Your task to perform on an android device: Clear the shopping cart on target. Add "acer predator" to the cart on target Image 0: 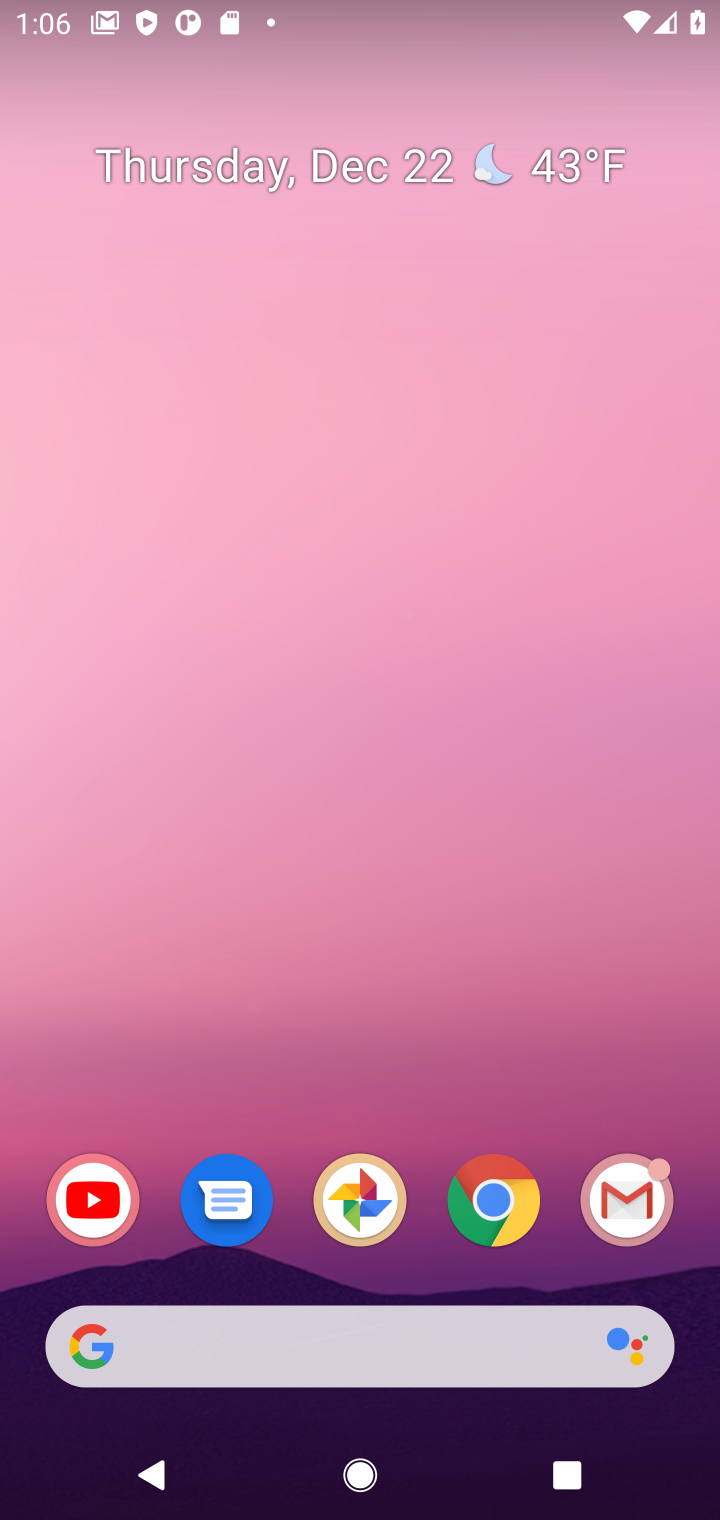
Step 0: click (492, 1214)
Your task to perform on an android device: Clear the shopping cart on target. Add "acer predator" to the cart on target Image 1: 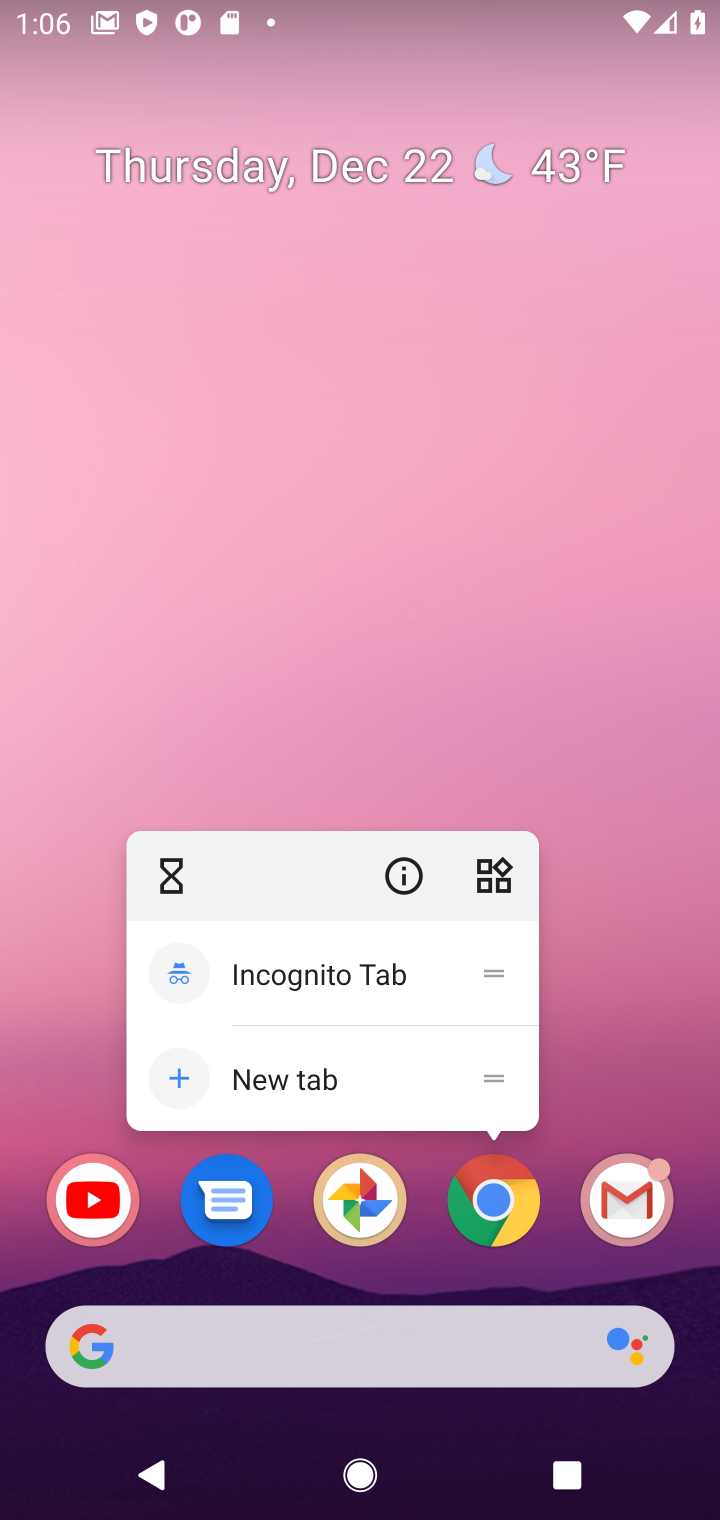
Step 1: click (492, 1214)
Your task to perform on an android device: Clear the shopping cart on target. Add "acer predator" to the cart on target Image 2: 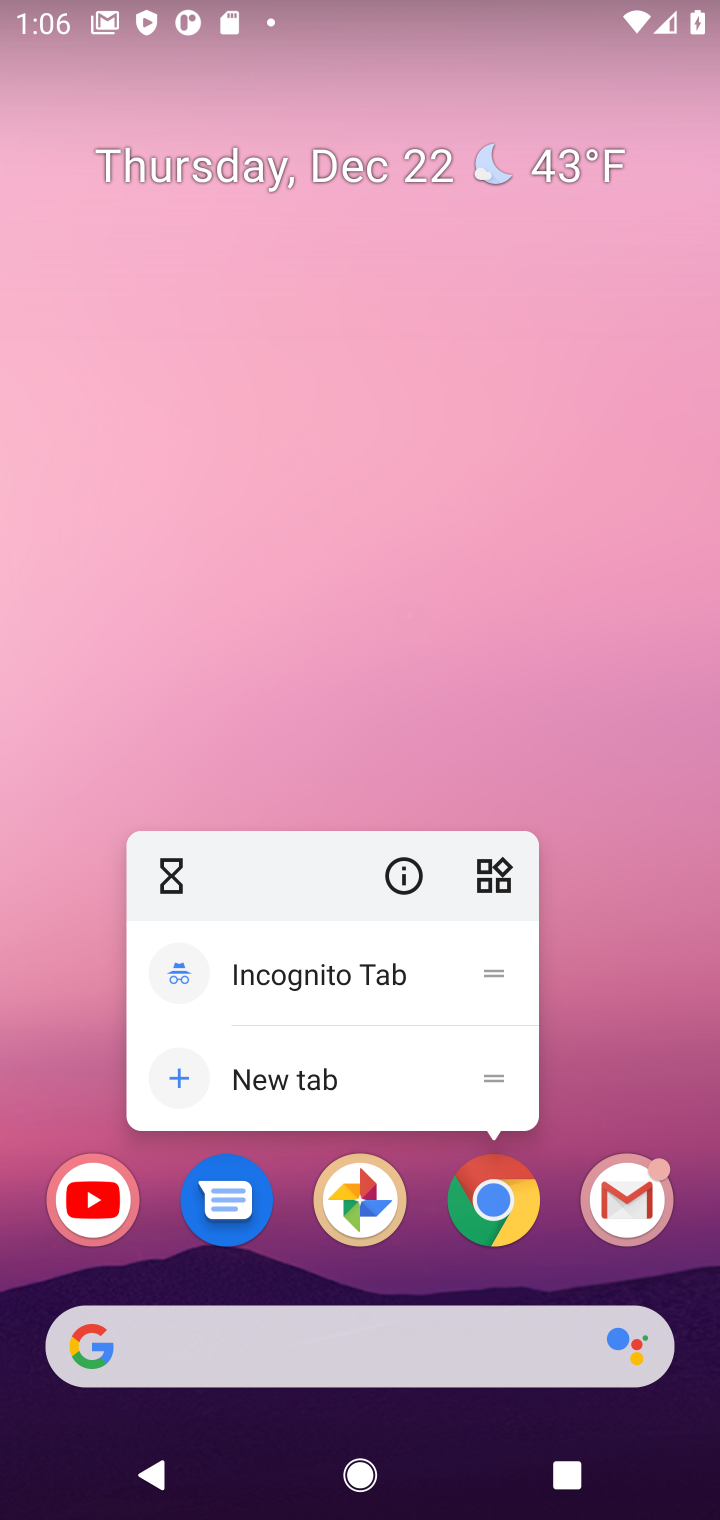
Step 2: click (492, 1214)
Your task to perform on an android device: Clear the shopping cart on target. Add "acer predator" to the cart on target Image 3: 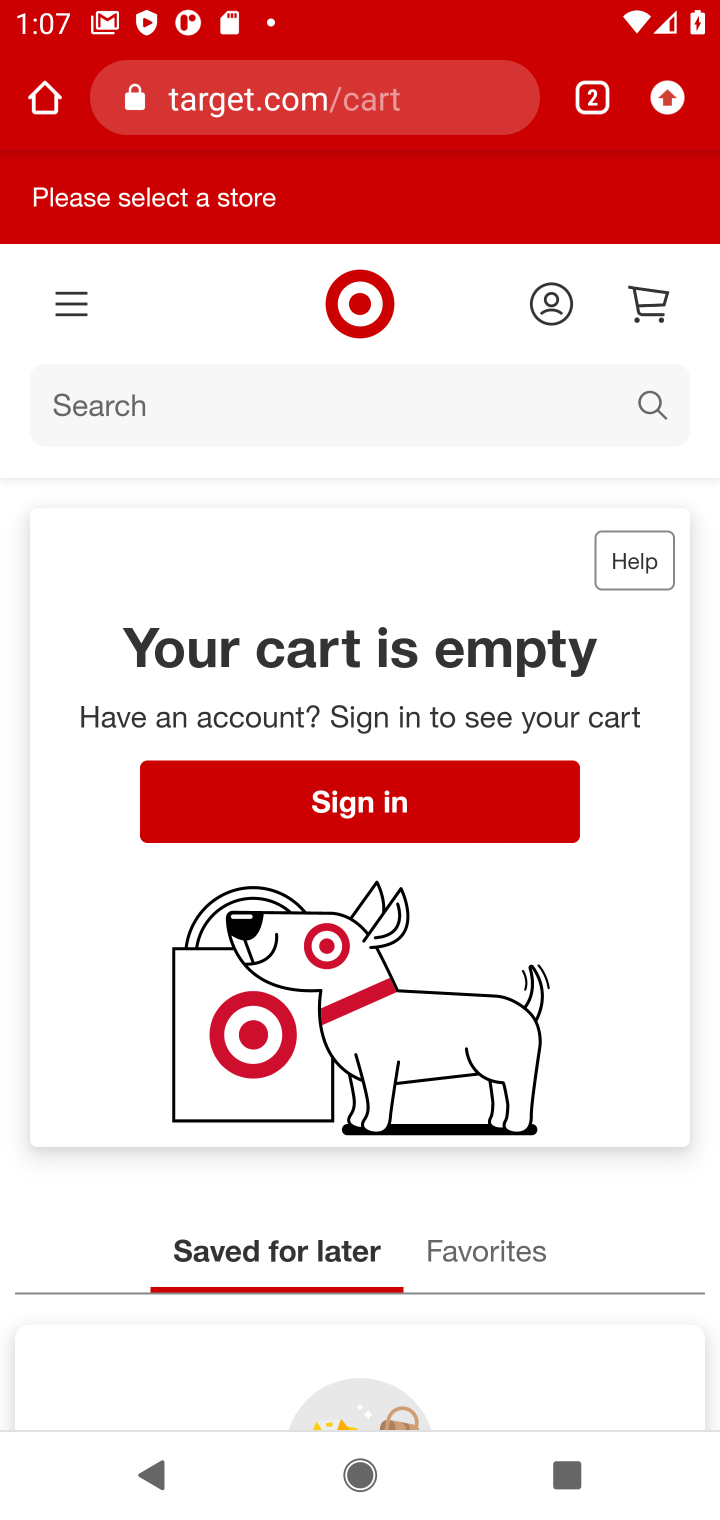
Step 3: click (82, 412)
Your task to perform on an android device: Clear the shopping cart on target. Add "acer predator" to the cart on target Image 4: 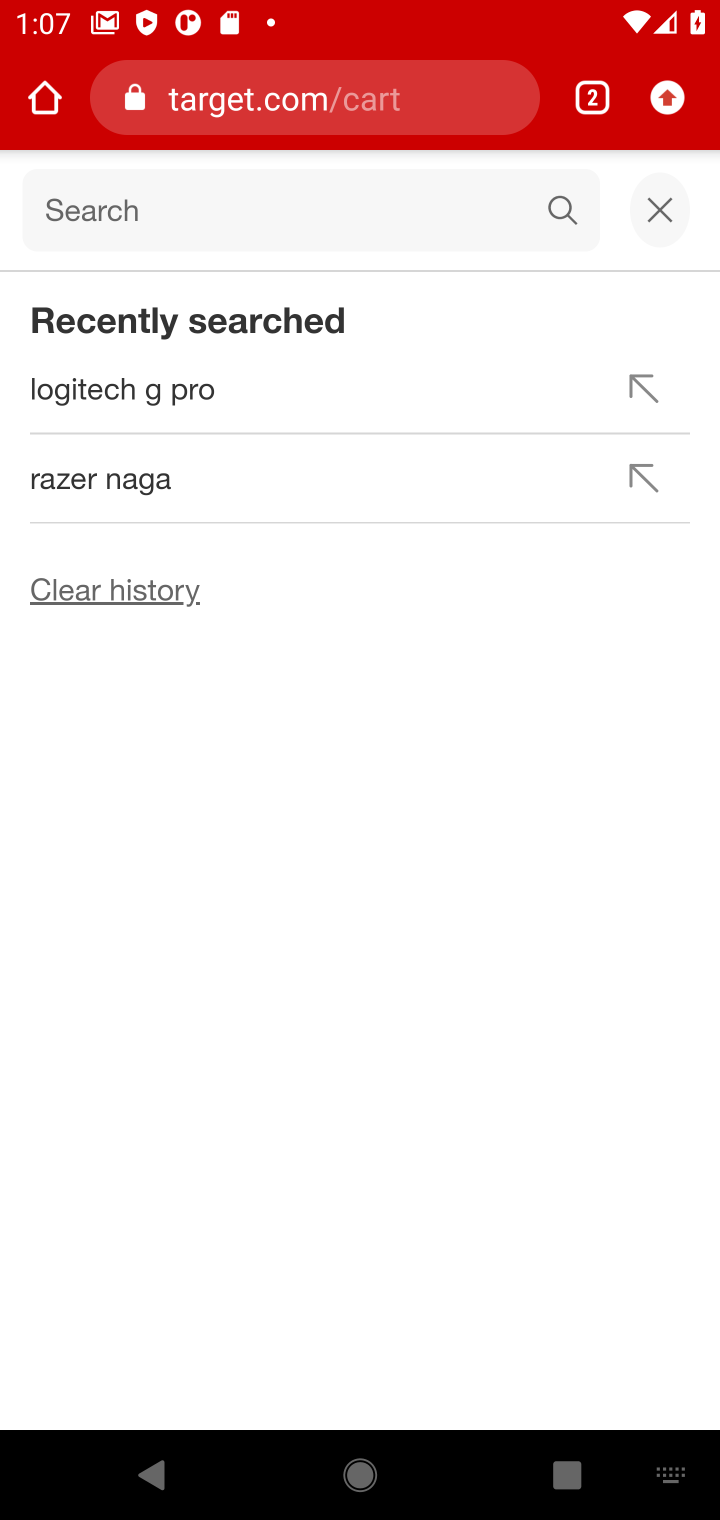
Step 4: click (126, 200)
Your task to perform on an android device: Clear the shopping cart on target. Add "acer predator" to the cart on target Image 5: 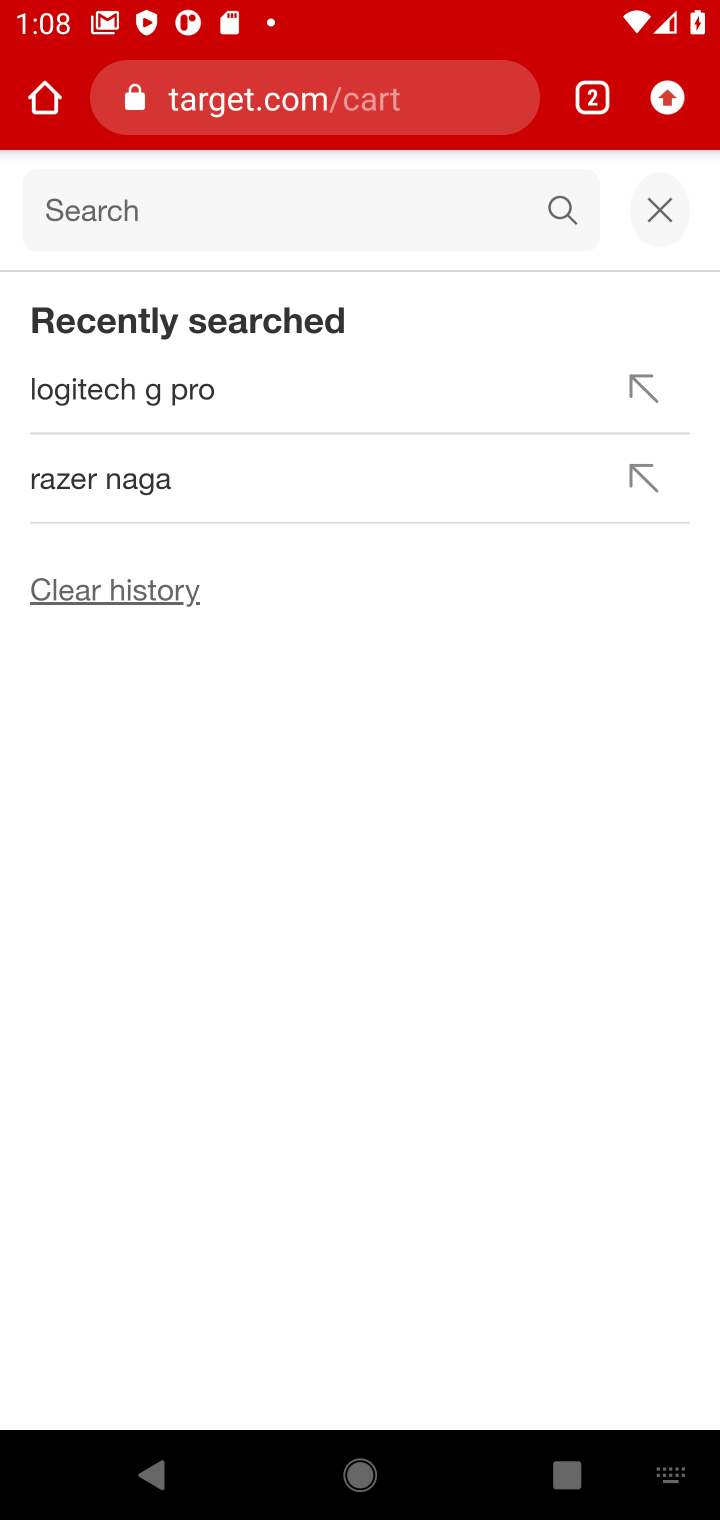
Step 5: type "acer predator"
Your task to perform on an android device: Clear the shopping cart on target. Add "acer predator" to the cart on target Image 6: 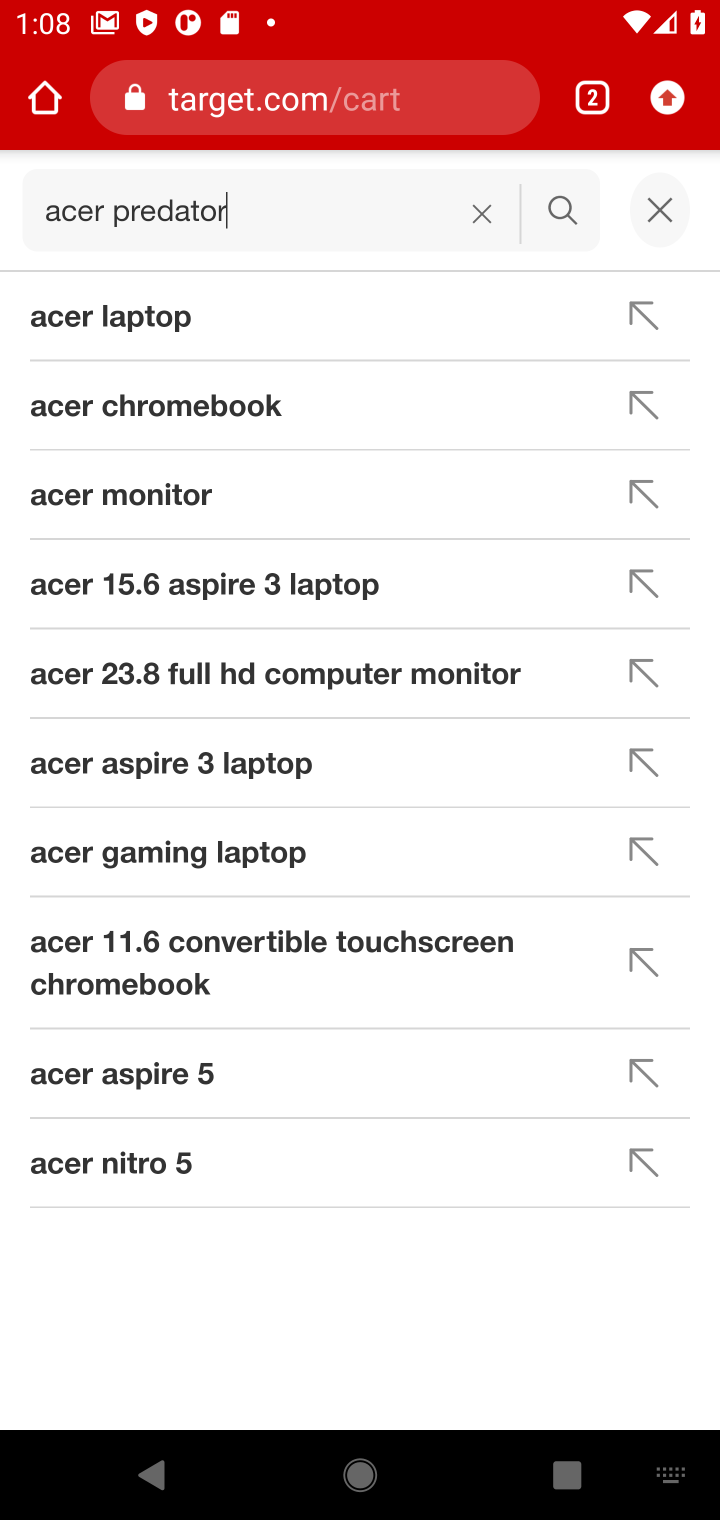
Step 6: click (549, 203)
Your task to perform on an android device: Clear the shopping cart on target. Add "acer predator" to the cart on target Image 7: 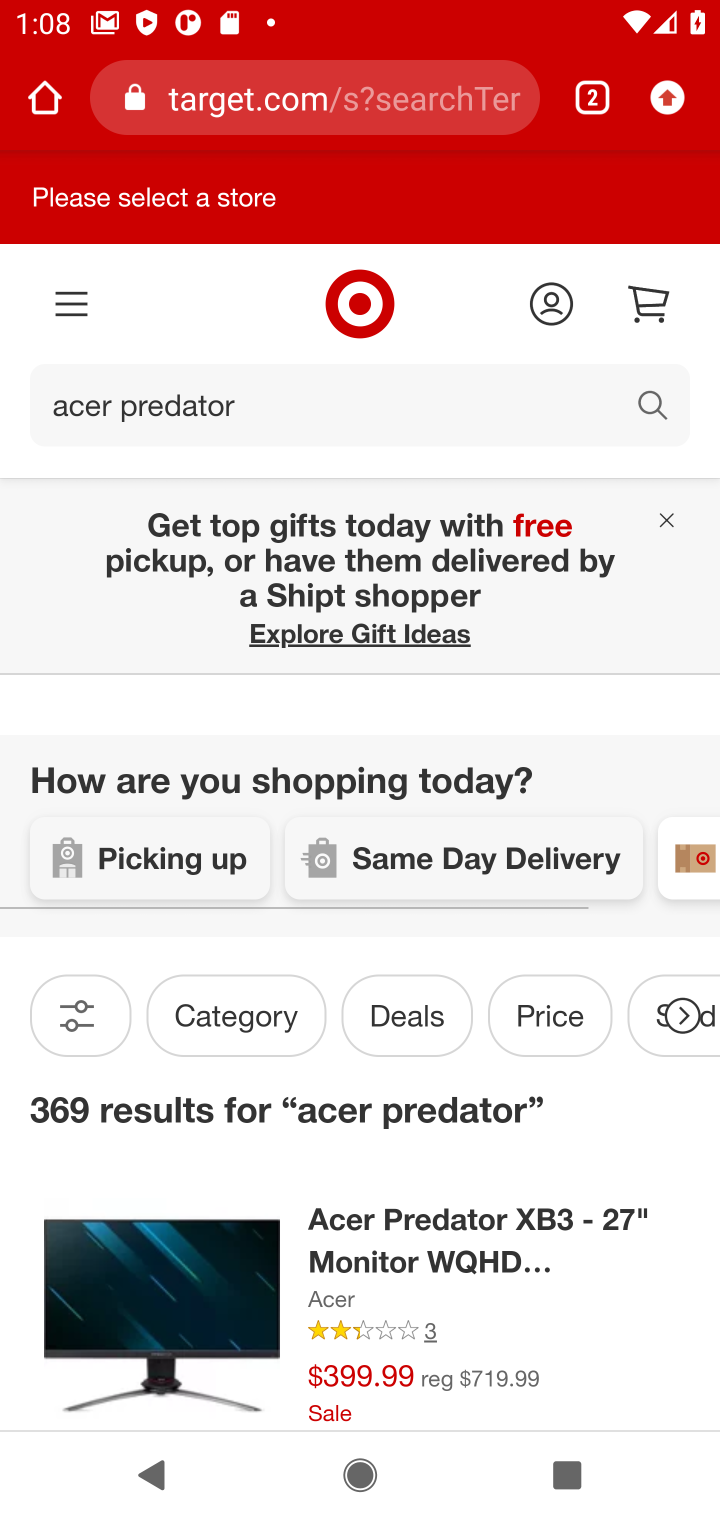
Step 7: drag from (309, 1252) to (336, 781)
Your task to perform on an android device: Clear the shopping cart on target. Add "acer predator" to the cart on target Image 8: 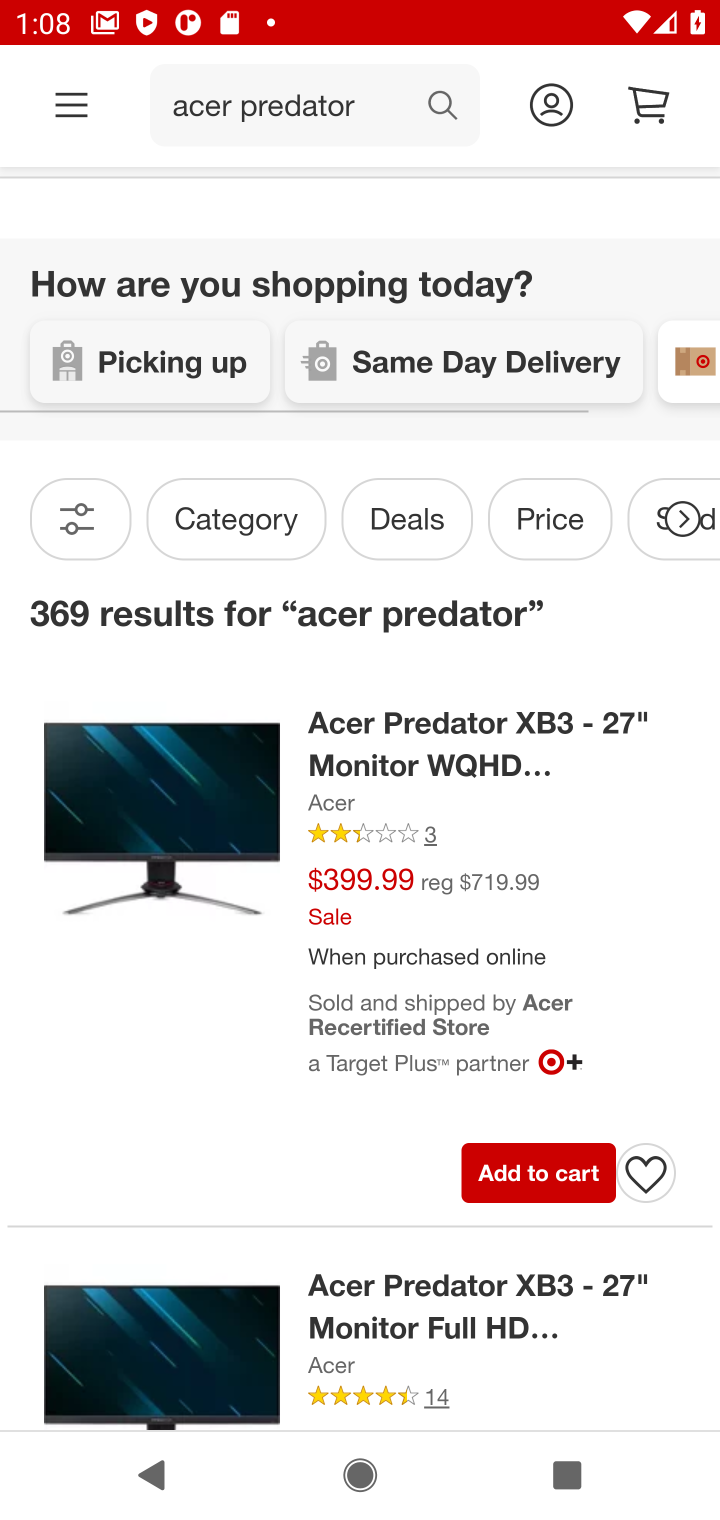
Step 8: click (537, 1189)
Your task to perform on an android device: Clear the shopping cart on target. Add "acer predator" to the cart on target Image 9: 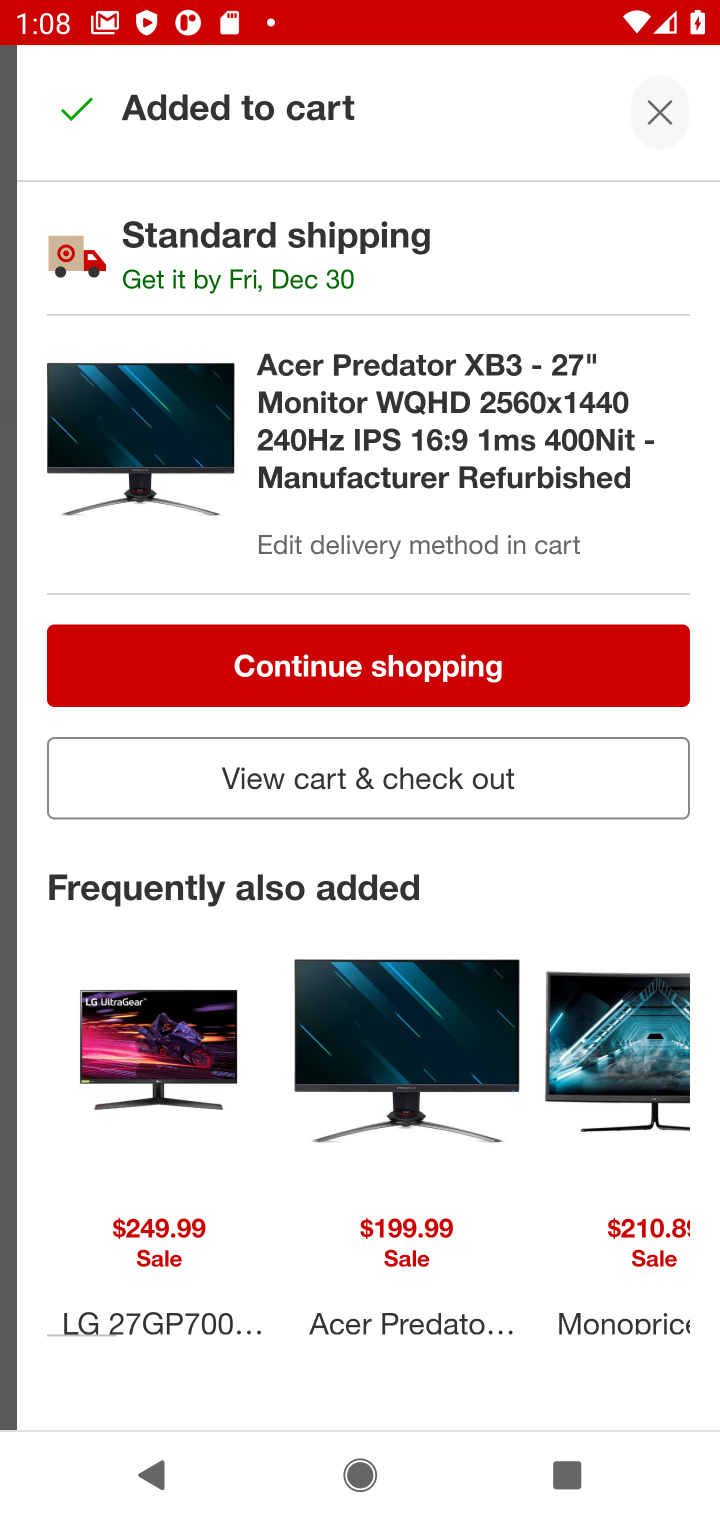
Step 9: task complete